Your task to perform on an android device: Open Chrome and go to the settings page Image 0: 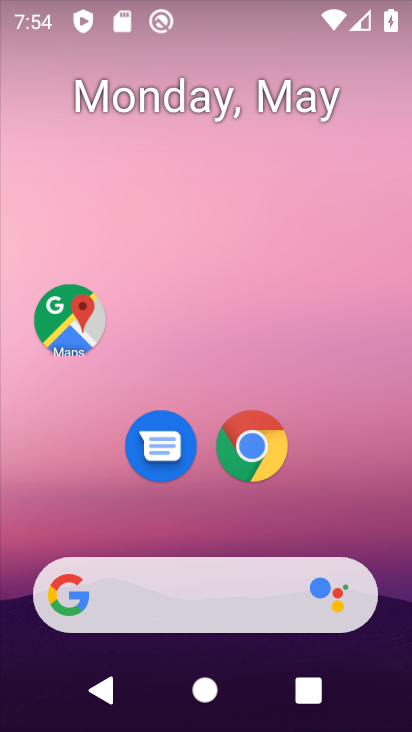
Step 0: click (242, 445)
Your task to perform on an android device: Open Chrome and go to the settings page Image 1: 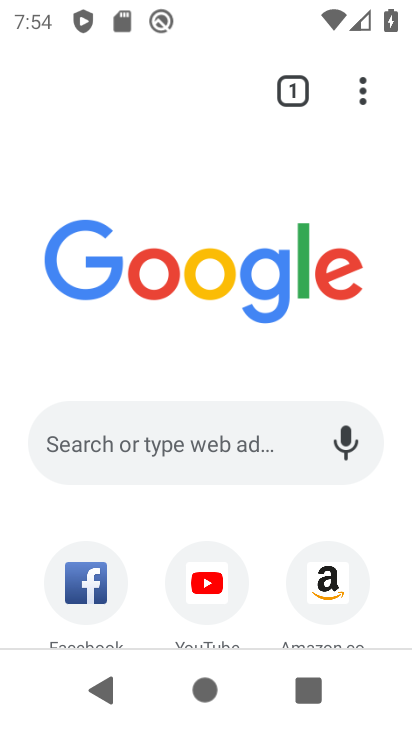
Step 1: click (363, 86)
Your task to perform on an android device: Open Chrome and go to the settings page Image 2: 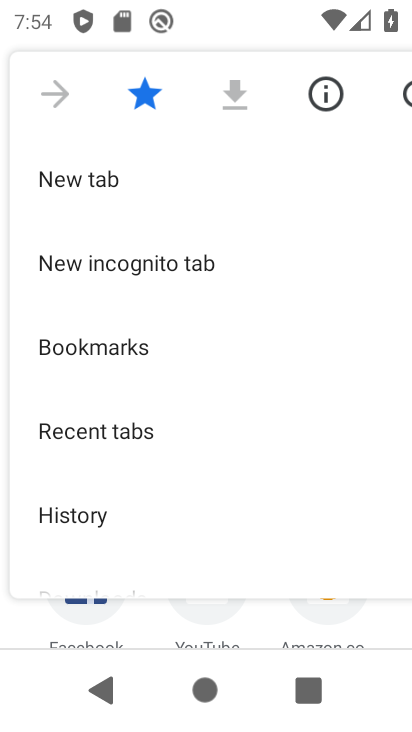
Step 2: drag from (181, 525) to (197, 406)
Your task to perform on an android device: Open Chrome and go to the settings page Image 3: 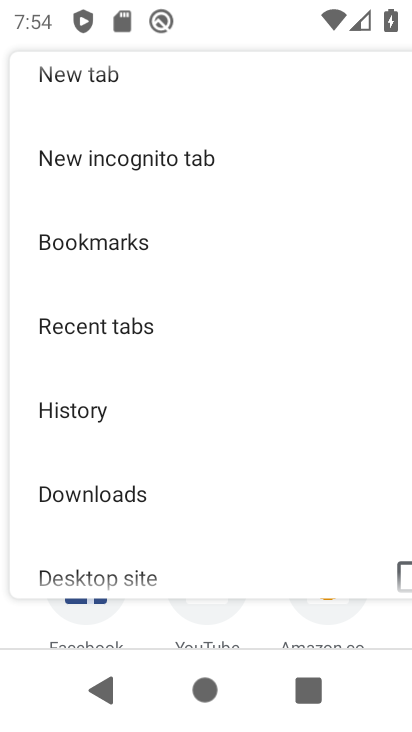
Step 3: drag from (170, 537) to (185, 440)
Your task to perform on an android device: Open Chrome and go to the settings page Image 4: 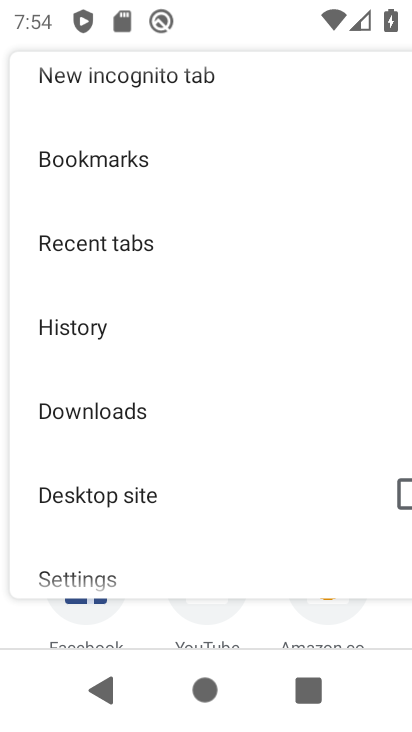
Step 4: drag from (158, 530) to (166, 445)
Your task to perform on an android device: Open Chrome and go to the settings page Image 5: 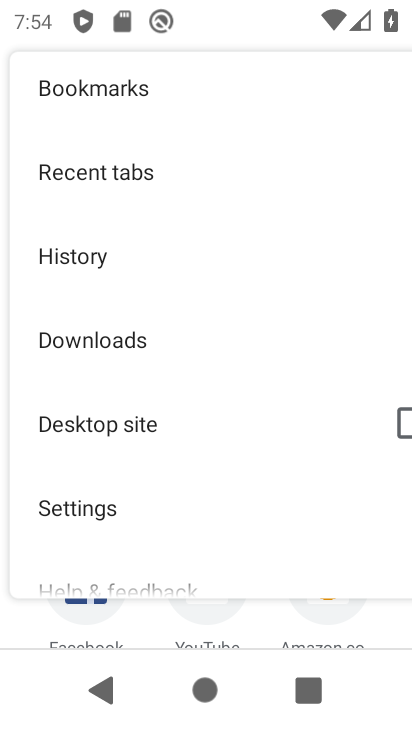
Step 5: click (155, 496)
Your task to perform on an android device: Open Chrome and go to the settings page Image 6: 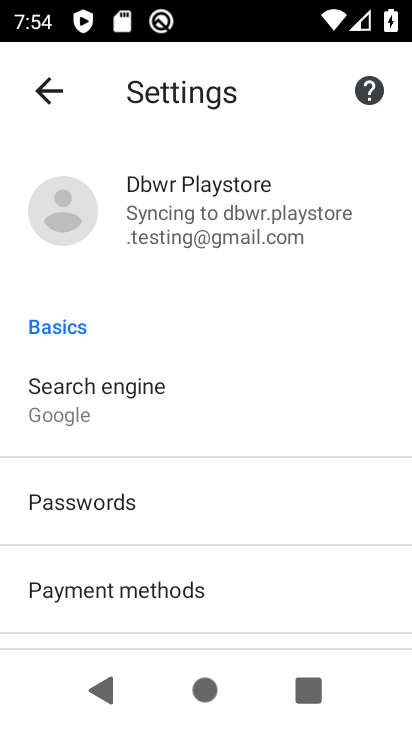
Step 6: task complete